Your task to perform on an android device: Show me popular games on the Play Store Image 0: 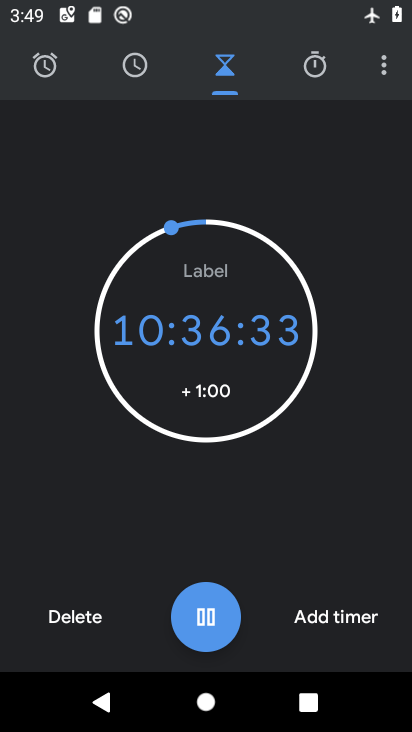
Step 0: press home button
Your task to perform on an android device: Show me popular games on the Play Store Image 1: 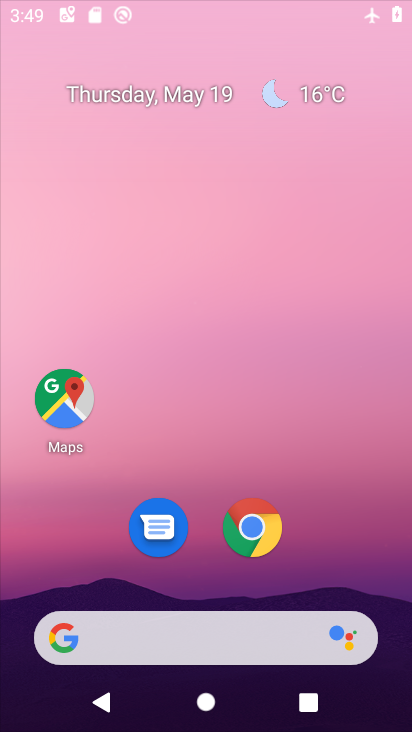
Step 1: drag from (326, 570) to (246, 53)
Your task to perform on an android device: Show me popular games on the Play Store Image 2: 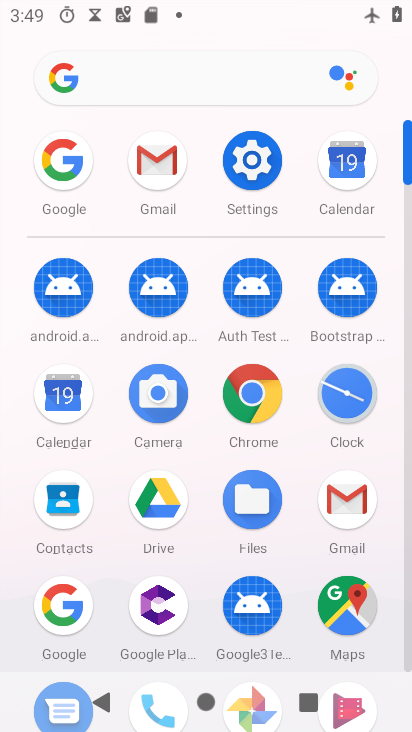
Step 2: drag from (192, 612) to (215, 172)
Your task to perform on an android device: Show me popular games on the Play Store Image 3: 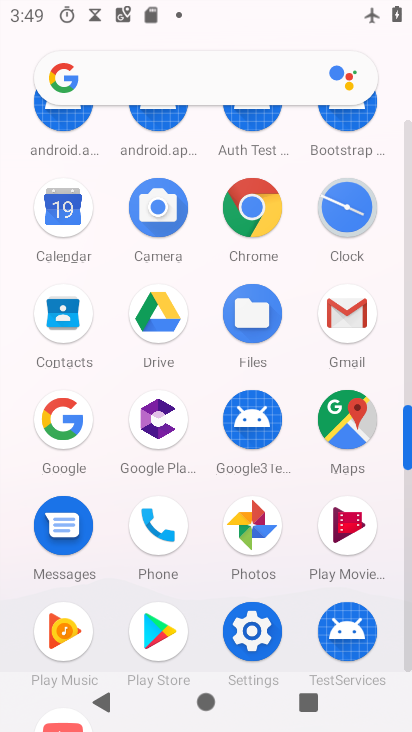
Step 3: click (161, 615)
Your task to perform on an android device: Show me popular games on the Play Store Image 4: 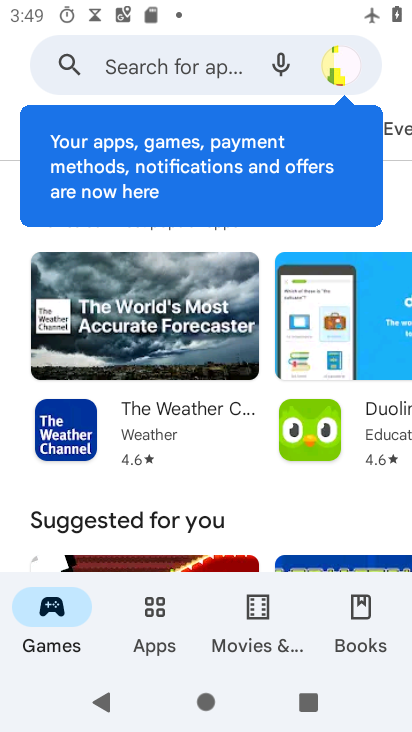
Step 4: click (9, 119)
Your task to perform on an android device: Show me popular games on the Play Store Image 5: 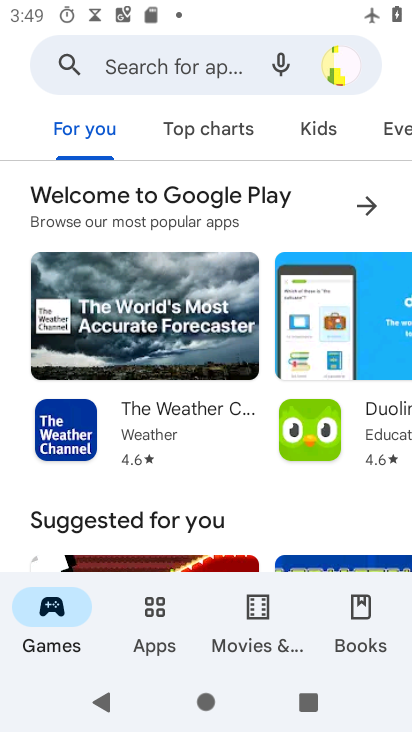
Step 5: click (172, 117)
Your task to perform on an android device: Show me popular games on the Play Store Image 6: 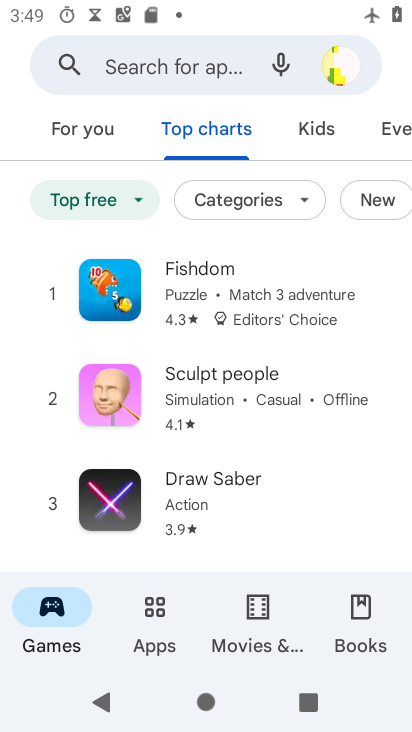
Step 6: task complete